Your task to perform on an android device: Open the web browser Image 0: 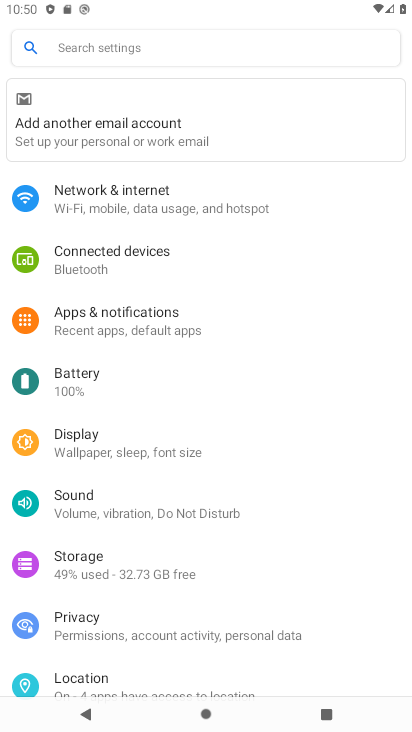
Step 0: press home button
Your task to perform on an android device: Open the web browser Image 1: 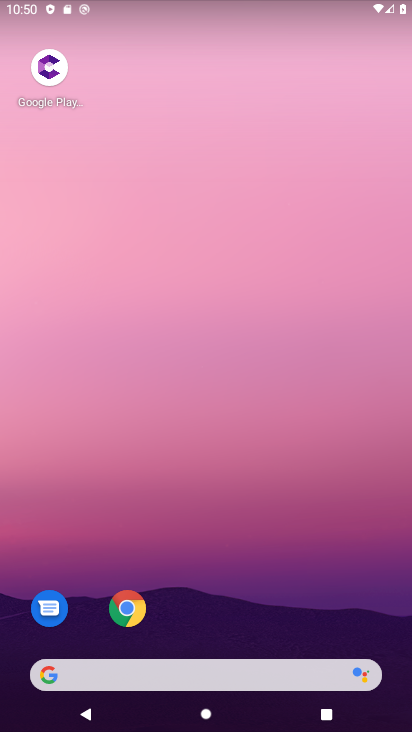
Step 1: click (125, 600)
Your task to perform on an android device: Open the web browser Image 2: 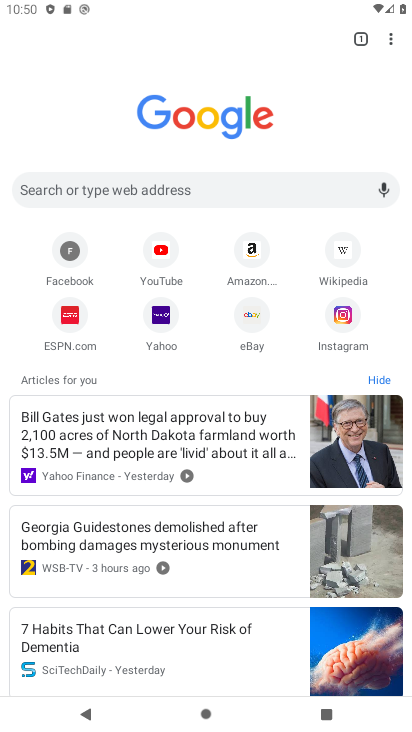
Step 2: click (273, 196)
Your task to perform on an android device: Open the web browser Image 3: 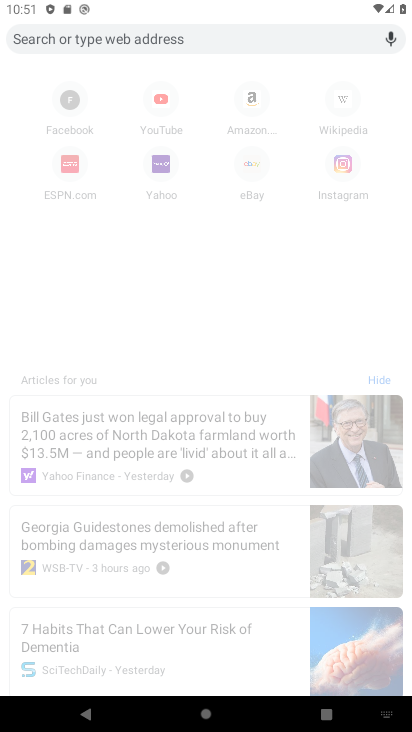
Step 3: task complete